Your task to perform on an android device: Do I have any events this weekend? Image 0: 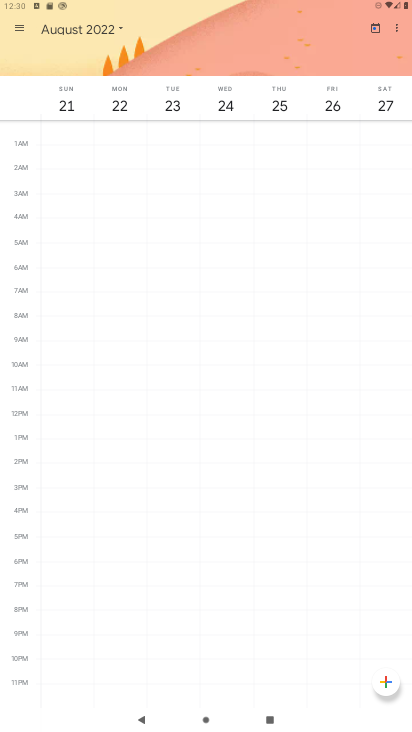
Step 0: press home button
Your task to perform on an android device: Do I have any events this weekend? Image 1: 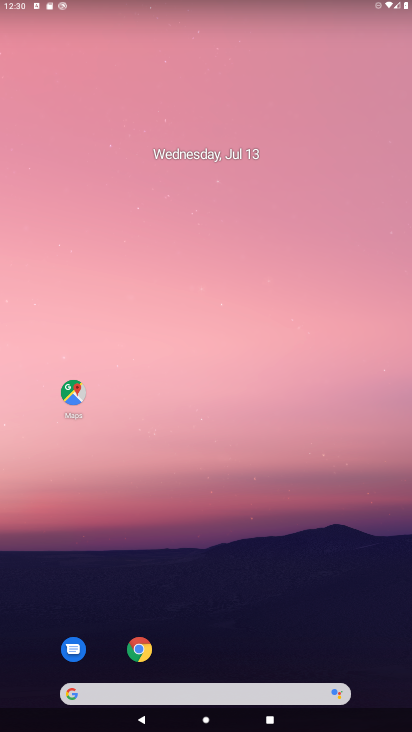
Step 1: drag from (356, 614) to (292, 63)
Your task to perform on an android device: Do I have any events this weekend? Image 2: 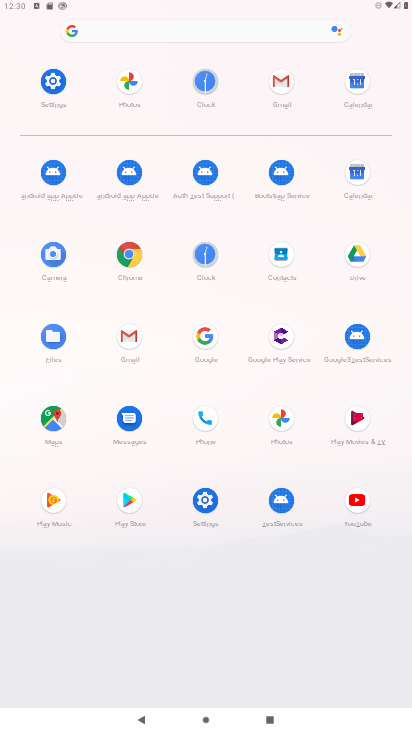
Step 2: click (353, 177)
Your task to perform on an android device: Do I have any events this weekend? Image 3: 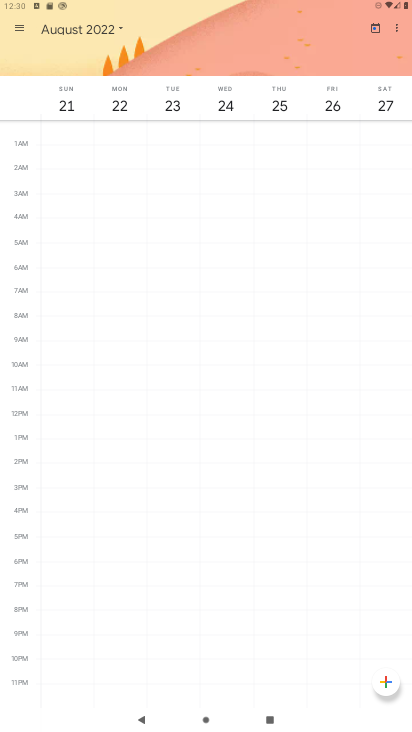
Step 3: click (111, 26)
Your task to perform on an android device: Do I have any events this weekend? Image 4: 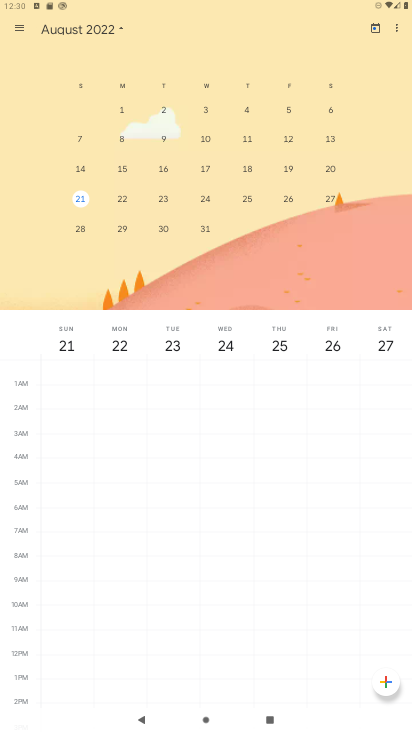
Step 4: drag from (80, 236) to (406, 175)
Your task to perform on an android device: Do I have any events this weekend? Image 5: 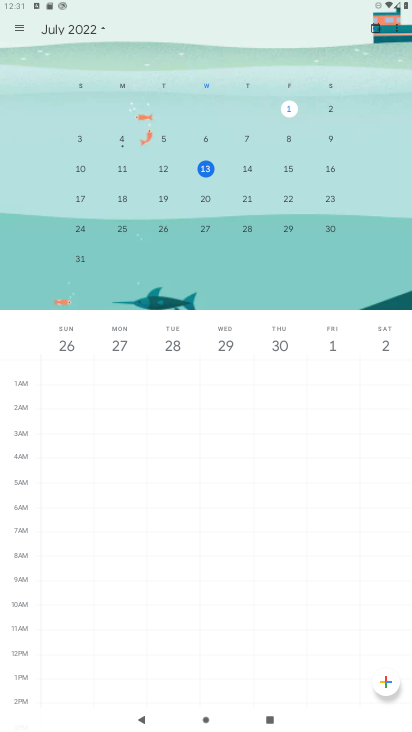
Step 5: click (199, 168)
Your task to perform on an android device: Do I have any events this weekend? Image 6: 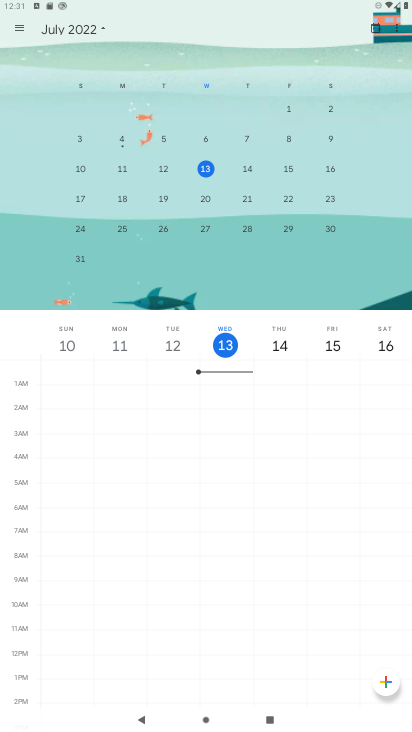
Step 6: task complete